Your task to perform on an android device: open a bookmark in the chrome app Image 0: 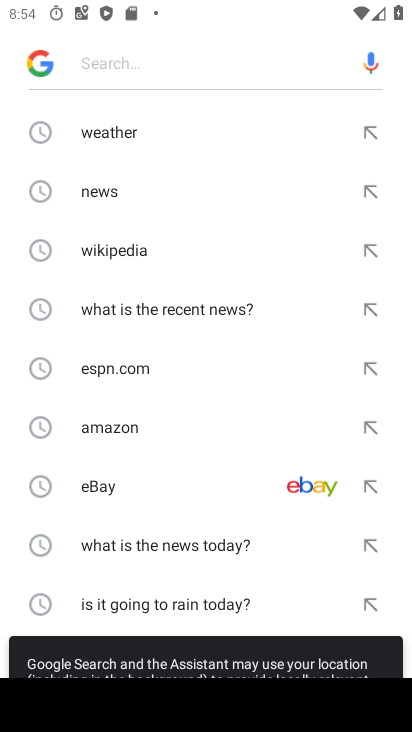
Step 0: press back button
Your task to perform on an android device: open a bookmark in the chrome app Image 1: 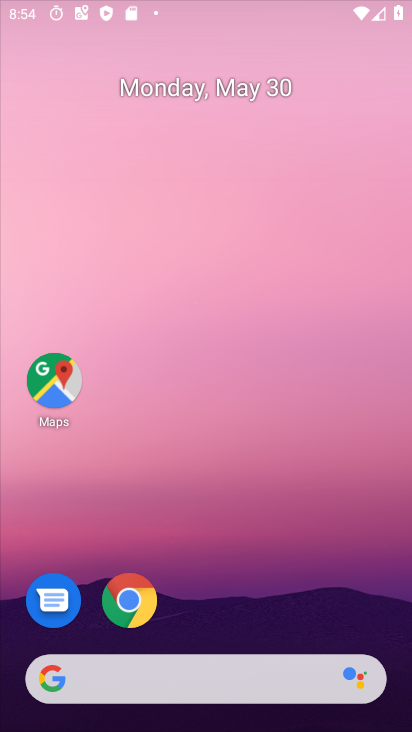
Step 1: press home button
Your task to perform on an android device: open a bookmark in the chrome app Image 2: 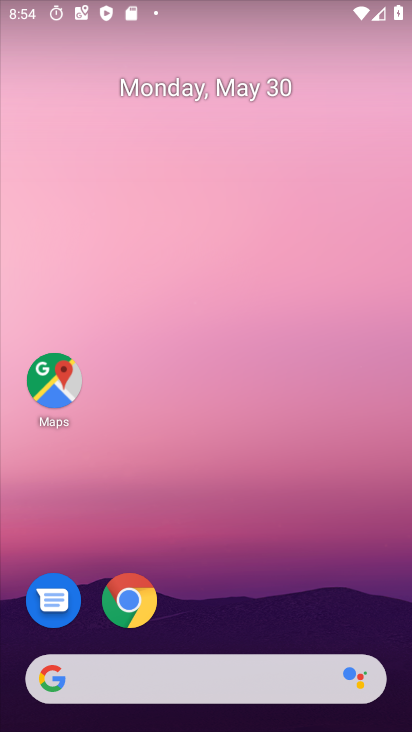
Step 2: drag from (255, 563) to (221, 3)
Your task to perform on an android device: open a bookmark in the chrome app Image 3: 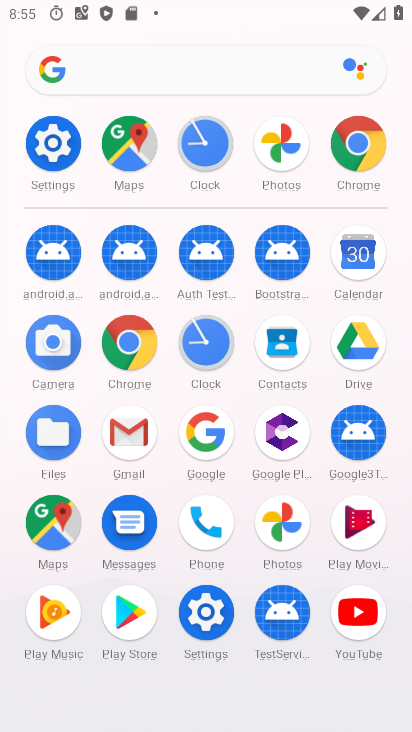
Step 3: drag from (6, 569) to (24, 352)
Your task to perform on an android device: open a bookmark in the chrome app Image 4: 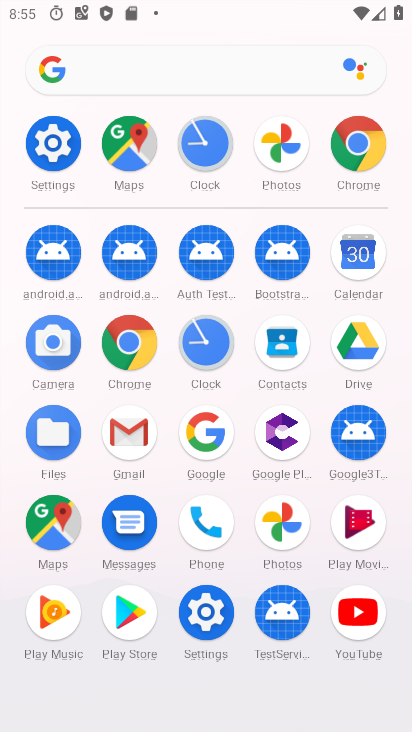
Step 4: click (130, 343)
Your task to perform on an android device: open a bookmark in the chrome app Image 5: 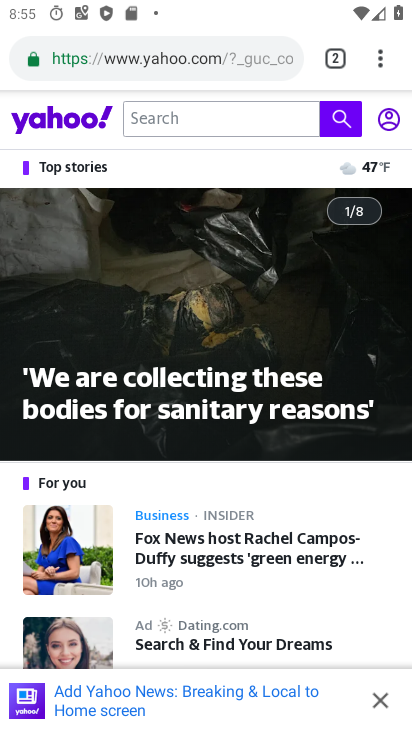
Step 5: drag from (376, 51) to (195, 217)
Your task to perform on an android device: open a bookmark in the chrome app Image 6: 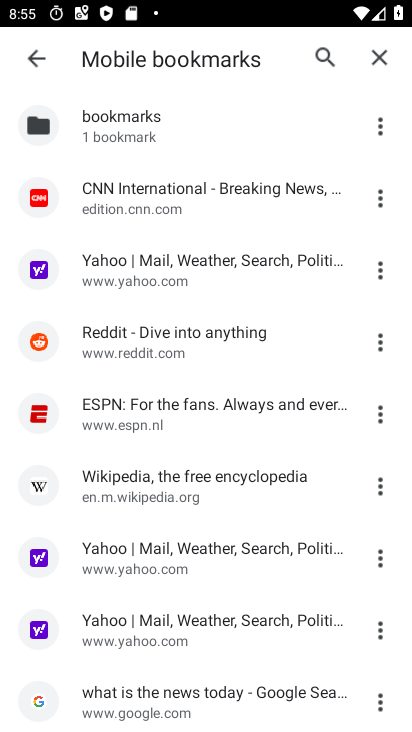
Step 6: drag from (217, 584) to (224, 136)
Your task to perform on an android device: open a bookmark in the chrome app Image 7: 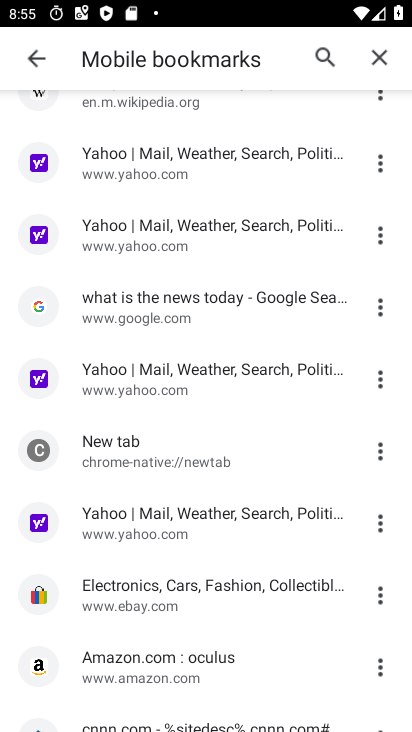
Step 7: drag from (232, 563) to (240, 186)
Your task to perform on an android device: open a bookmark in the chrome app Image 8: 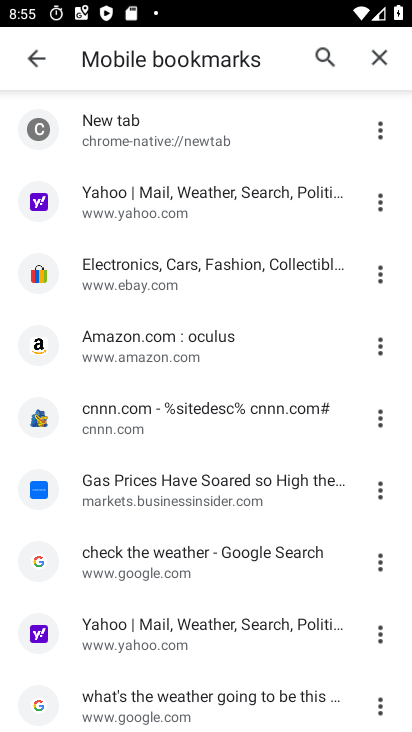
Step 8: click (171, 267)
Your task to perform on an android device: open a bookmark in the chrome app Image 9: 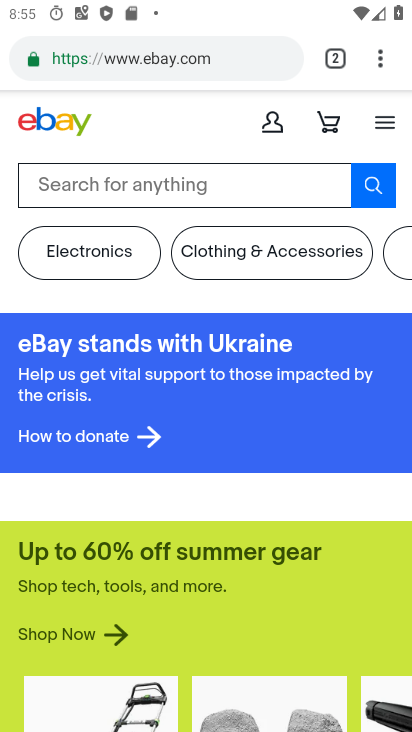
Step 9: task complete